Your task to perform on an android device: Open the phone app and click the voicemail tab. Image 0: 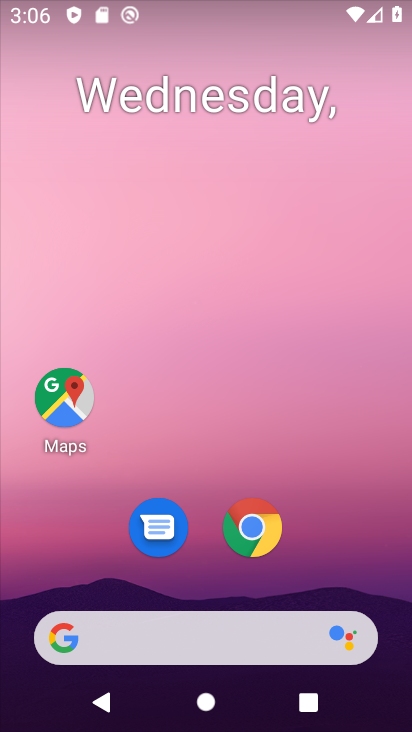
Step 0: drag from (350, 538) to (337, 155)
Your task to perform on an android device: Open the phone app and click the voicemail tab. Image 1: 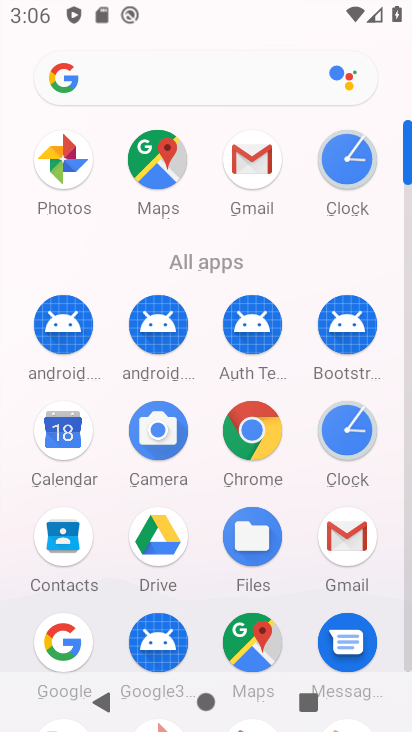
Step 1: drag from (195, 642) to (213, 277)
Your task to perform on an android device: Open the phone app and click the voicemail tab. Image 2: 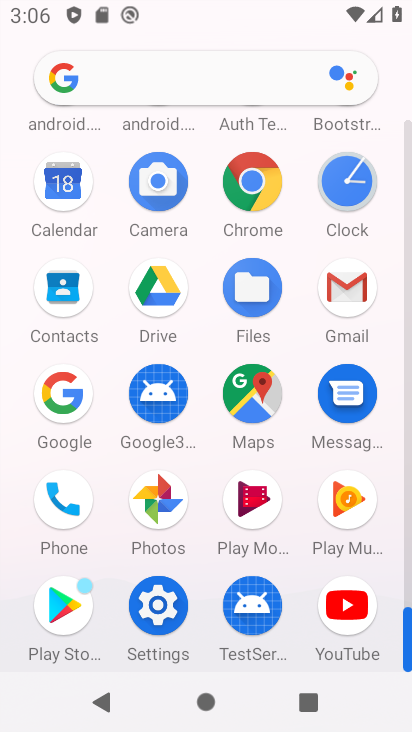
Step 2: click (46, 504)
Your task to perform on an android device: Open the phone app and click the voicemail tab. Image 3: 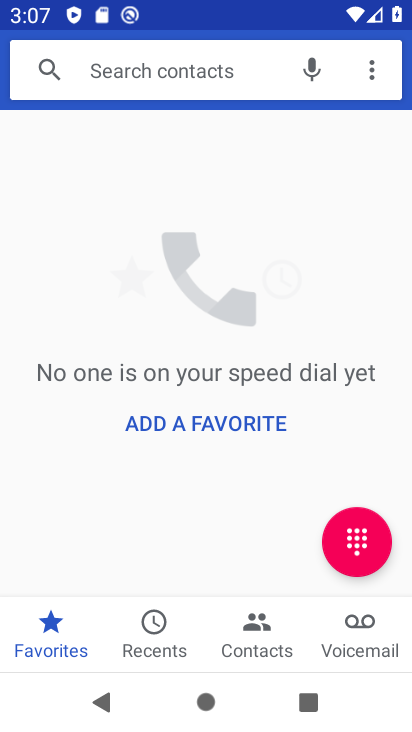
Step 3: click (361, 631)
Your task to perform on an android device: Open the phone app and click the voicemail tab. Image 4: 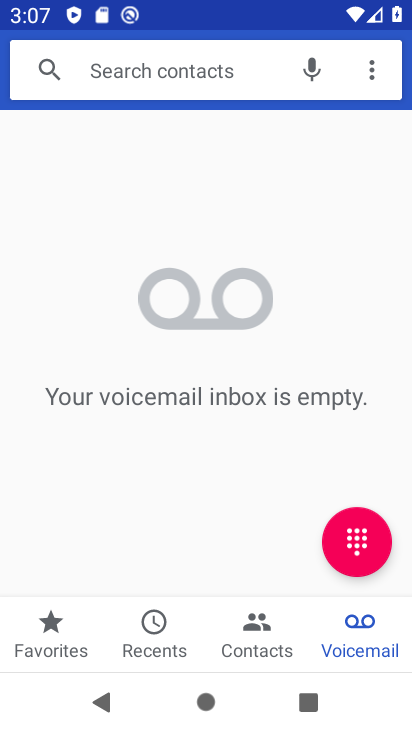
Step 4: task complete